Your task to perform on an android device: open wifi settings Image 0: 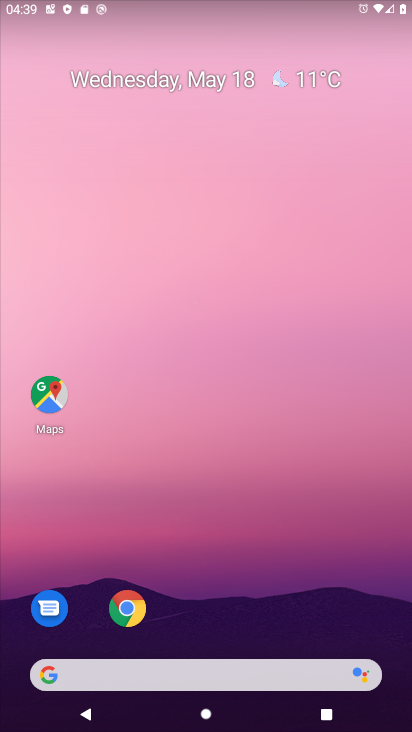
Step 0: drag from (184, 14) to (244, 635)
Your task to perform on an android device: open wifi settings Image 1: 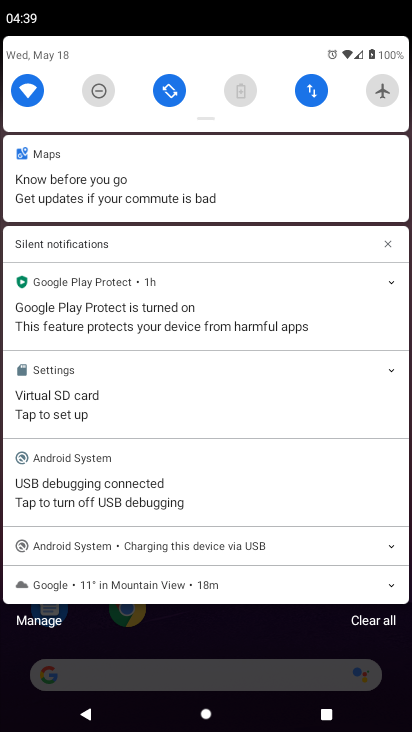
Step 1: click (28, 93)
Your task to perform on an android device: open wifi settings Image 2: 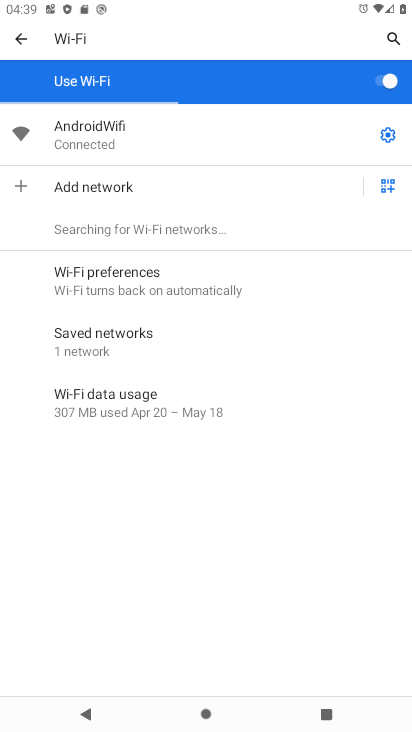
Step 2: task complete